Your task to perform on an android device: Open Amazon Image 0: 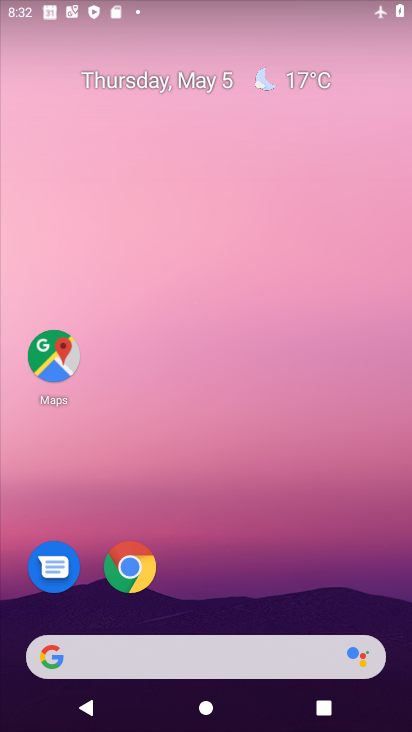
Step 0: drag from (213, 586) to (266, 81)
Your task to perform on an android device: Open Amazon Image 1: 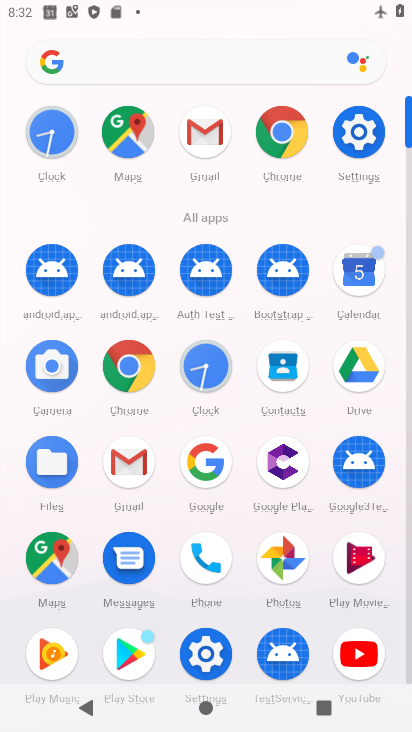
Step 1: click (271, 125)
Your task to perform on an android device: Open Amazon Image 2: 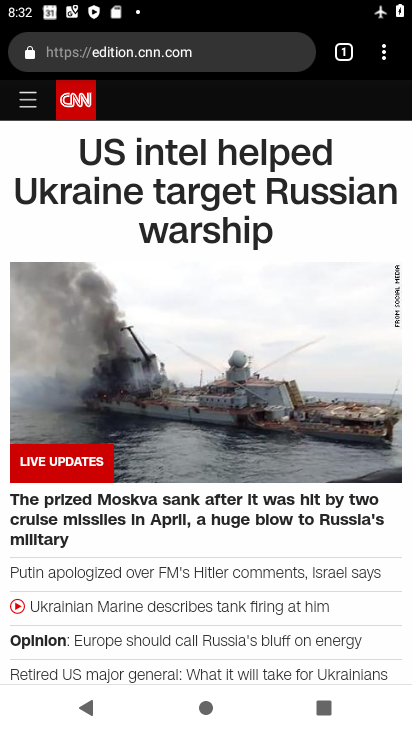
Step 2: click (387, 57)
Your task to perform on an android device: Open Amazon Image 3: 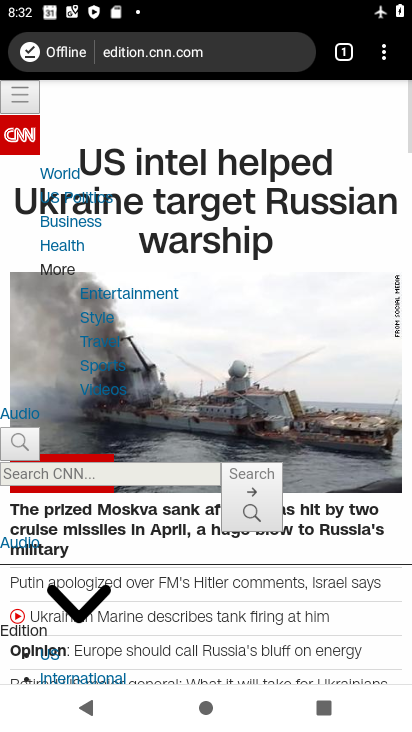
Step 3: drag from (387, 59) to (314, 108)
Your task to perform on an android device: Open Amazon Image 4: 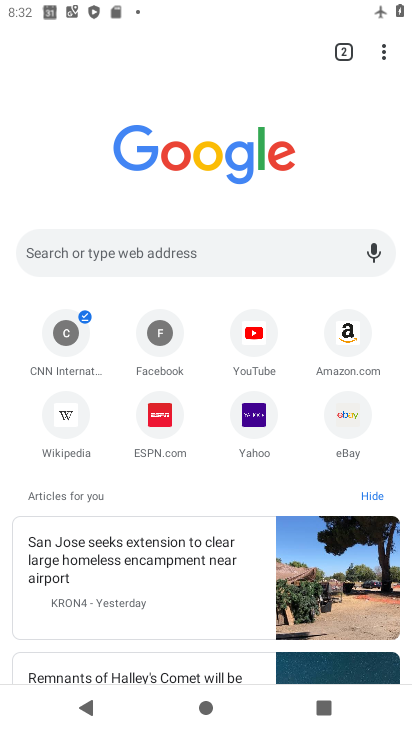
Step 4: click (343, 327)
Your task to perform on an android device: Open Amazon Image 5: 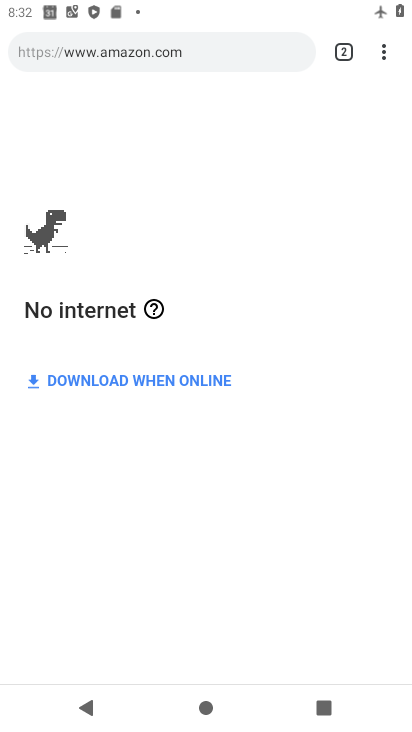
Step 5: task complete